Your task to perform on an android device: turn off airplane mode Image 0: 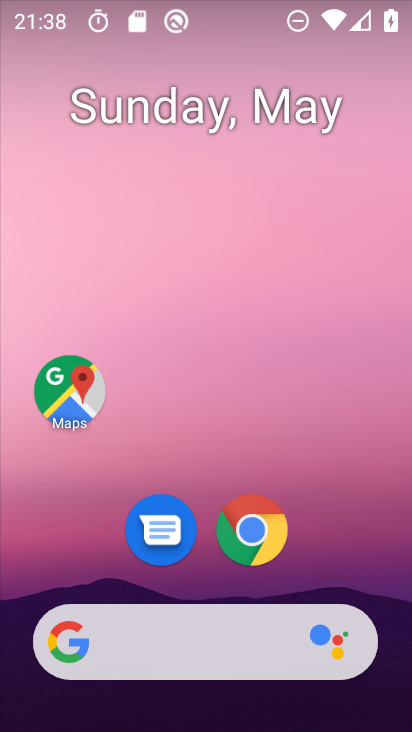
Step 0: drag from (237, 680) to (204, 187)
Your task to perform on an android device: turn off airplane mode Image 1: 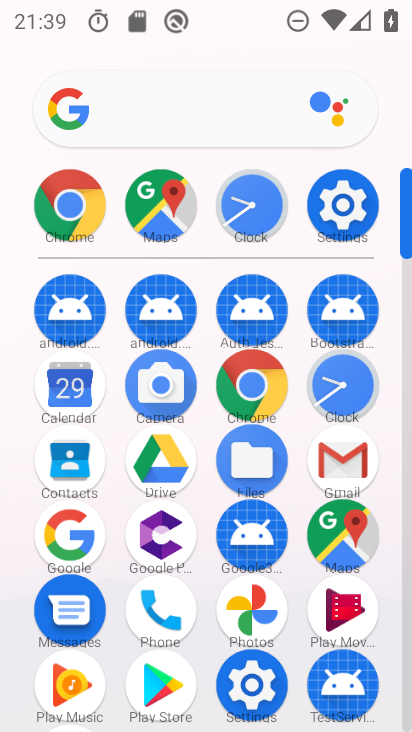
Step 1: click (345, 197)
Your task to perform on an android device: turn off airplane mode Image 2: 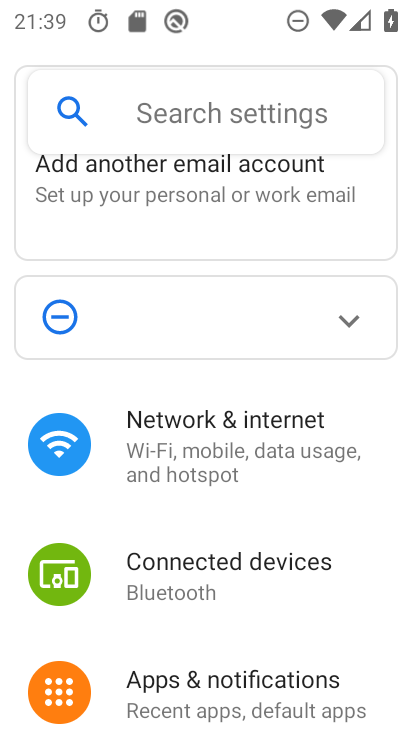
Step 2: click (241, 446)
Your task to perform on an android device: turn off airplane mode Image 3: 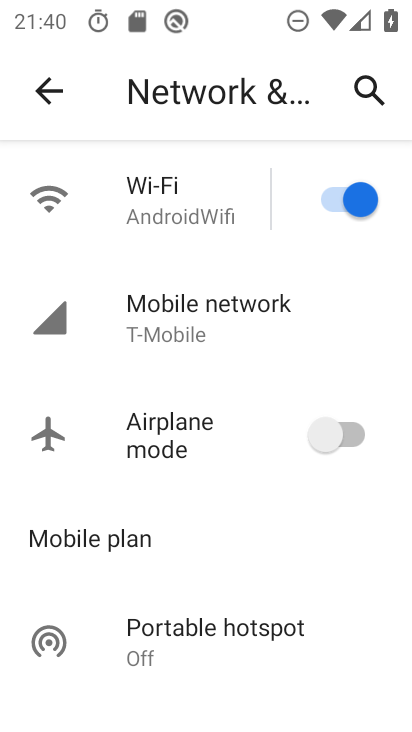
Step 3: click (331, 444)
Your task to perform on an android device: turn off airplane mode Image 4: 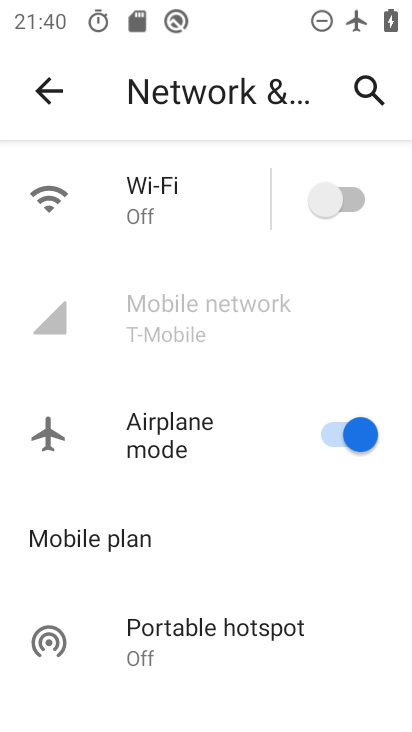
Step 4: click (340, 431)
Your task to perform on an android device: turn off airplane mode Image 5: 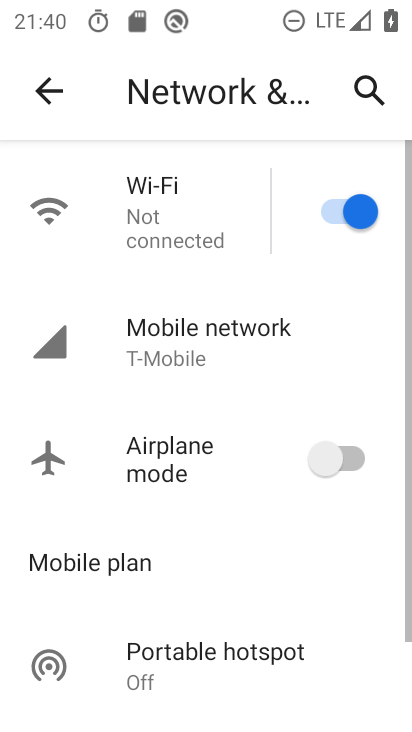
Step 5: task complete